Your task to perform on an android device: Open Wikipedia Image 0: 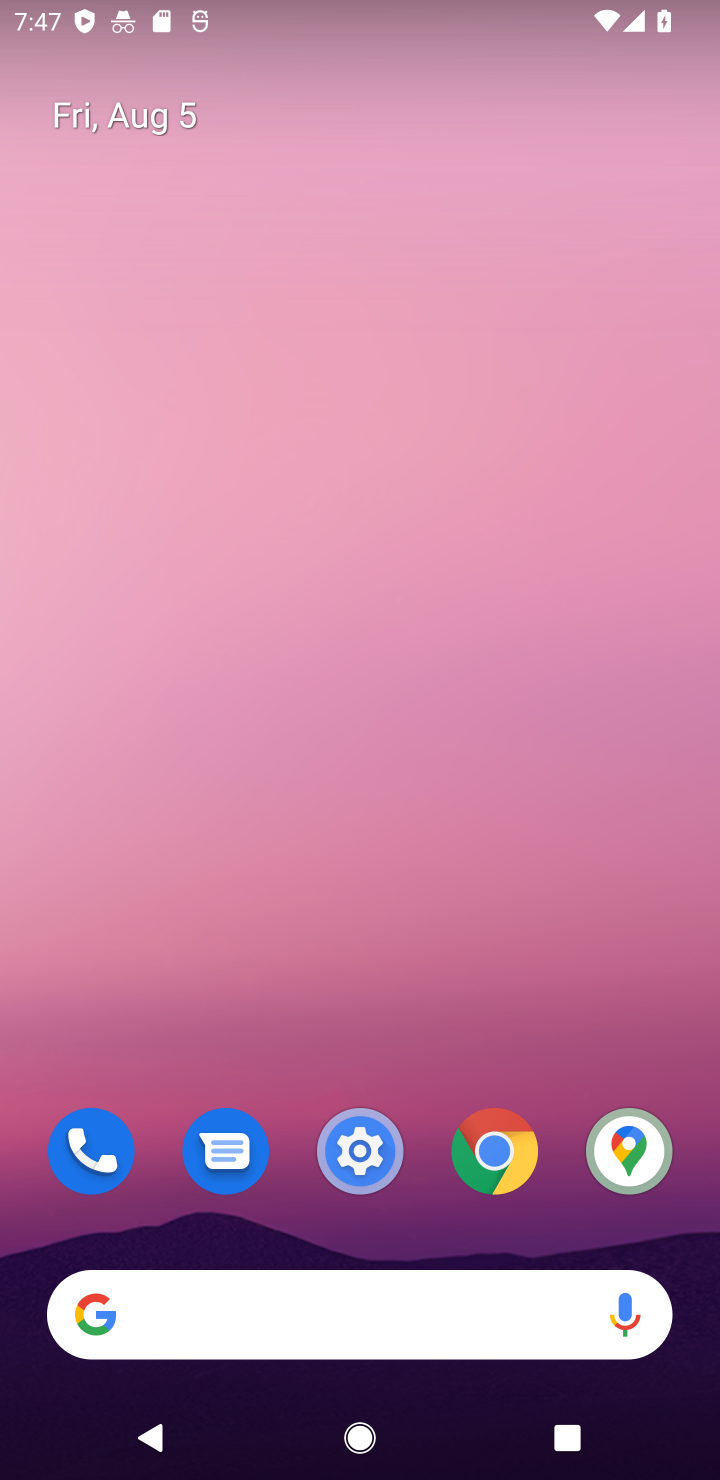
Step 0: drag from (380, 1251) to (704, 1425)
Your task to perform on an android device: Open Wikipedia Image 1: 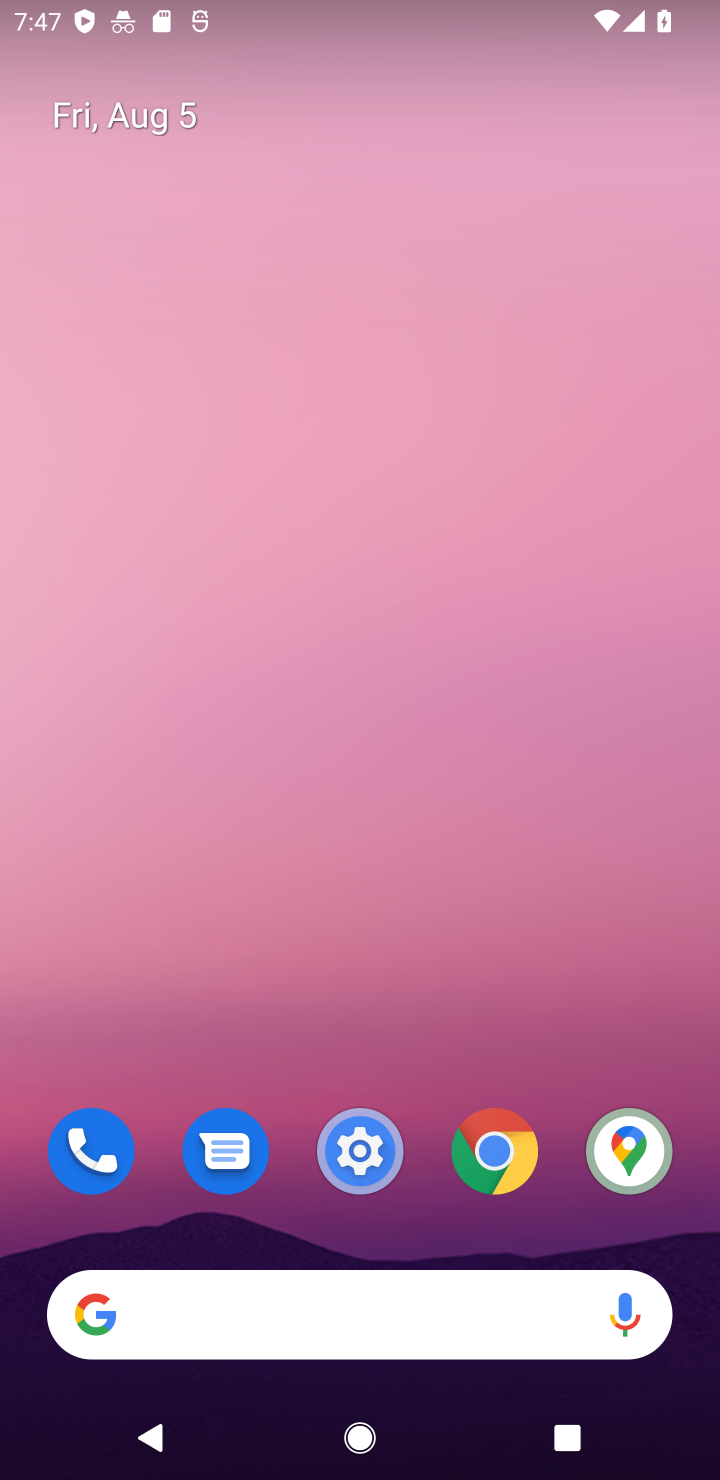
Step 1: click (477, 1130)
Your task to perform on an android device: Open Wikipedia Image 2: 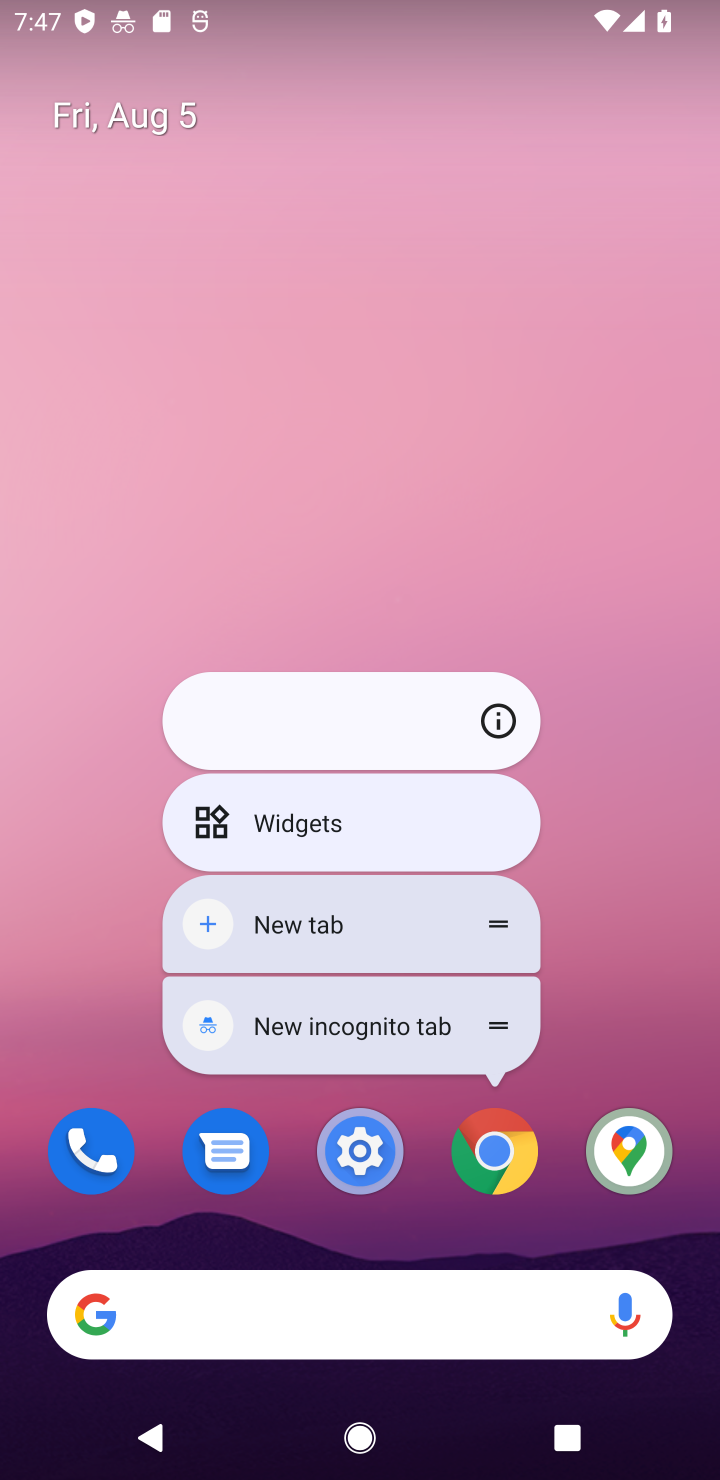
Step 2: click (474, 1216)
Your task to perform on an android device: Open Wikipedia Image 3: 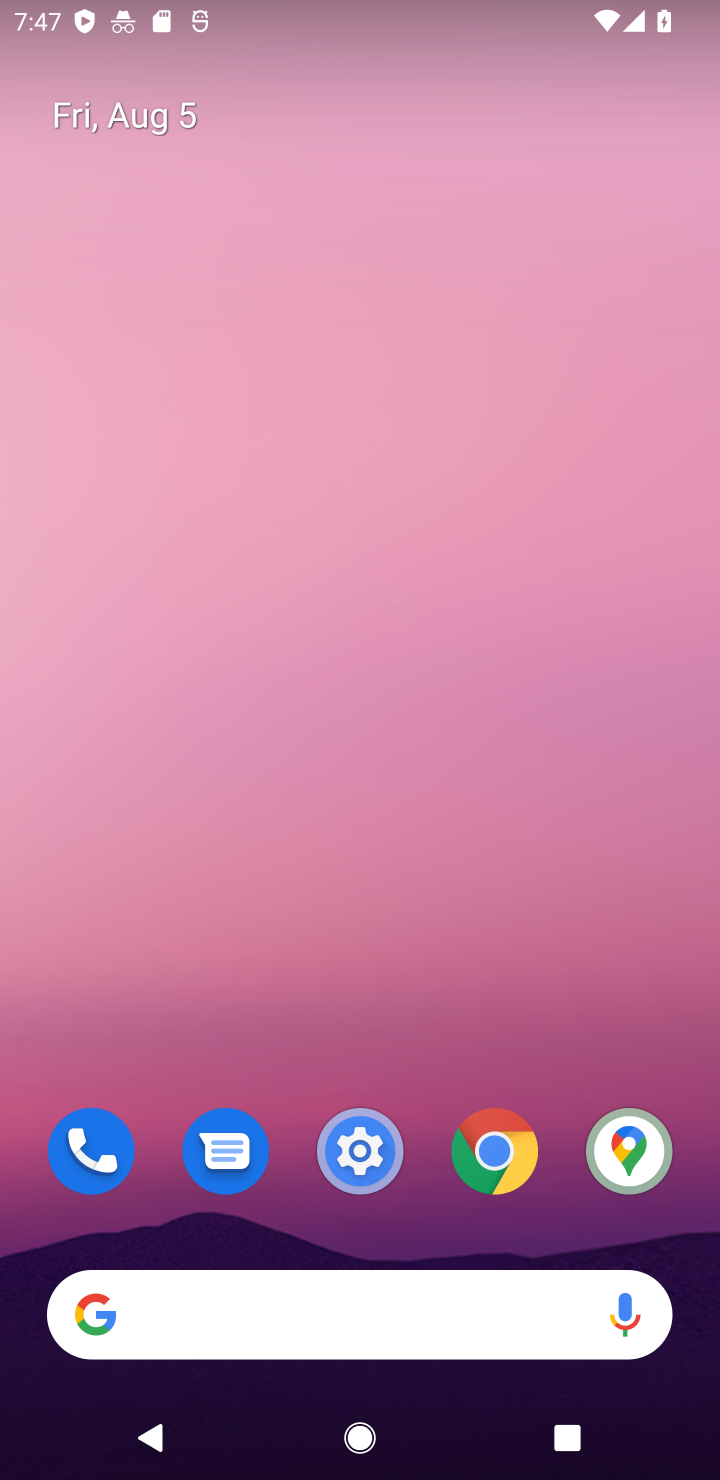
Step 3: drag from (336, 1265) to (377, 5)
Your task to perform on an android device: Open Wikipedia Image 4: 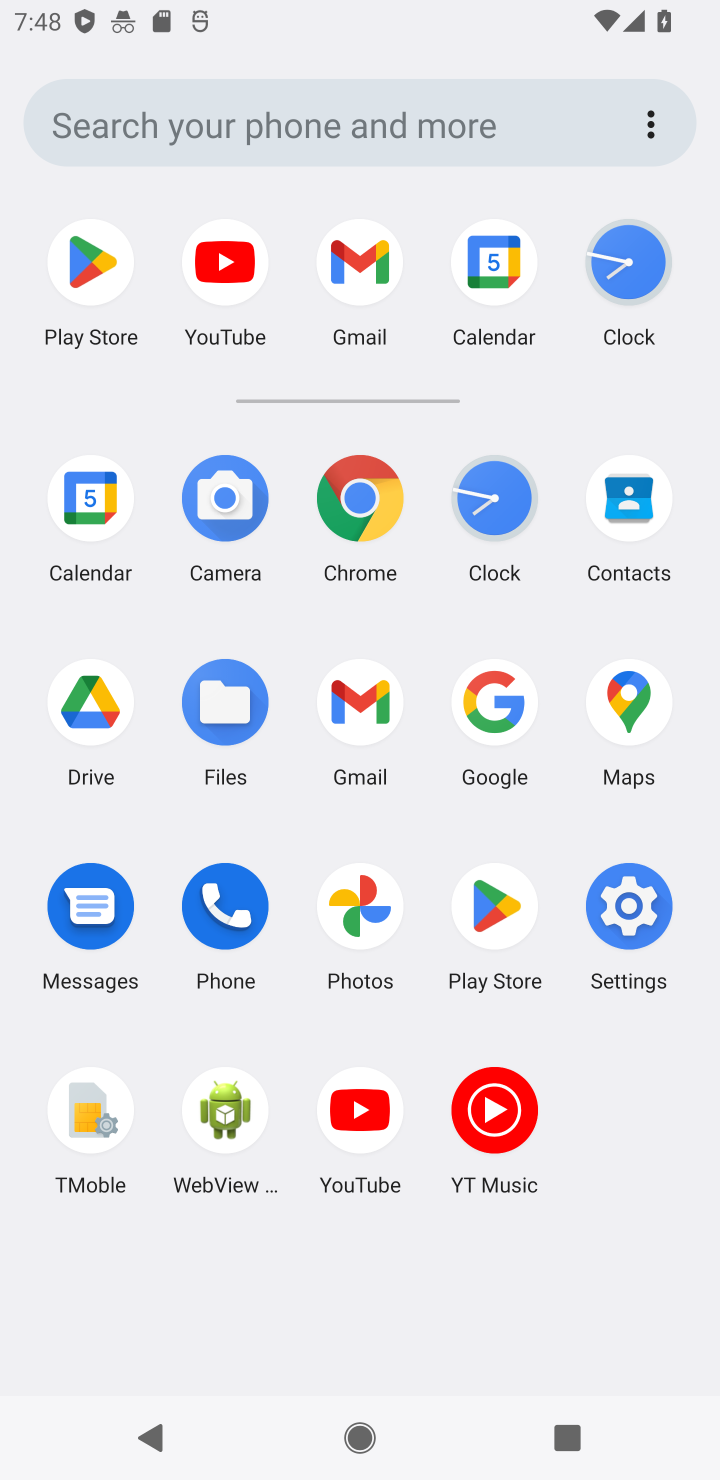
Step 4: drag from (416, 1244) to (330, 139)
Your task to perform on an android device: Open Wikipedia Image 5: 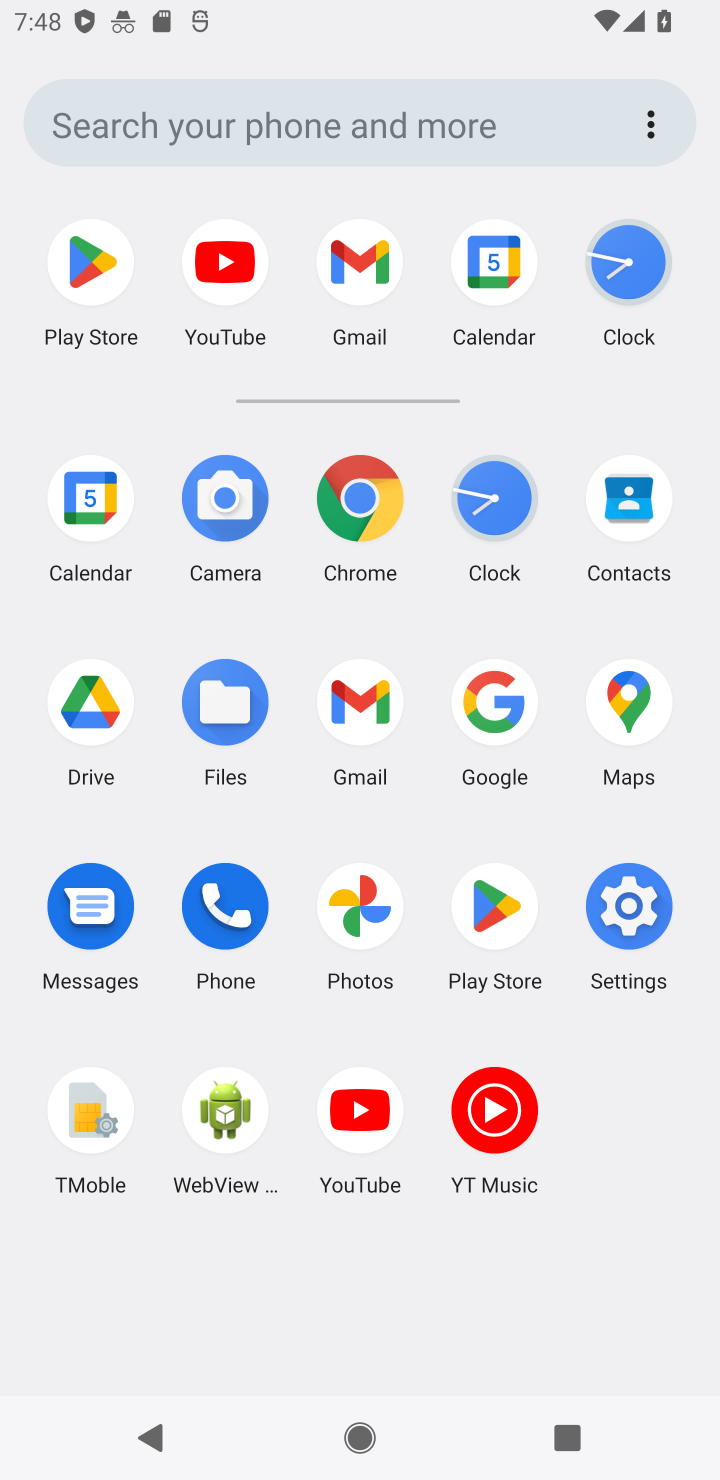
Step 5: click (371, 470)
Your task to perform on an android device: Open Wikipedia Image 6: 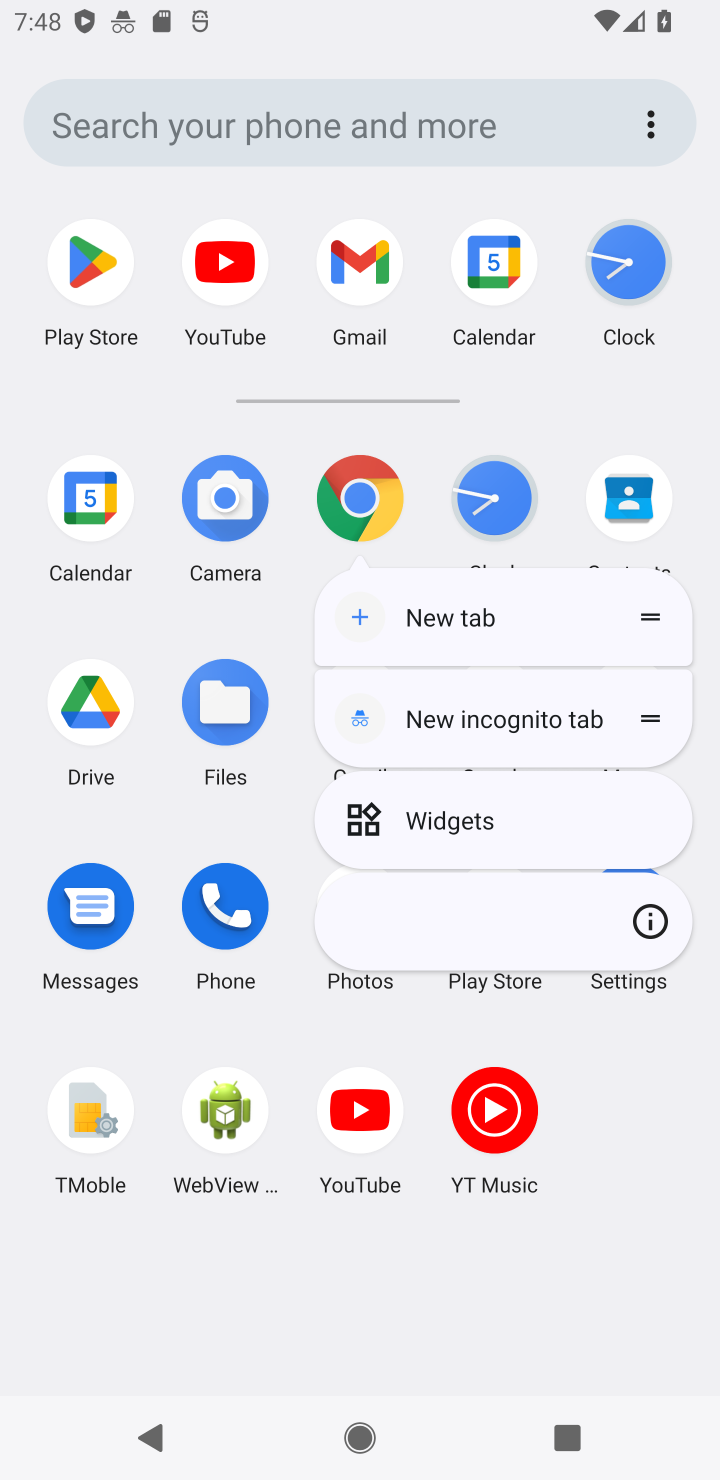
Step 6: click (366, 482)
Your task to perform on an android device: Open Wikipedia Image 7: 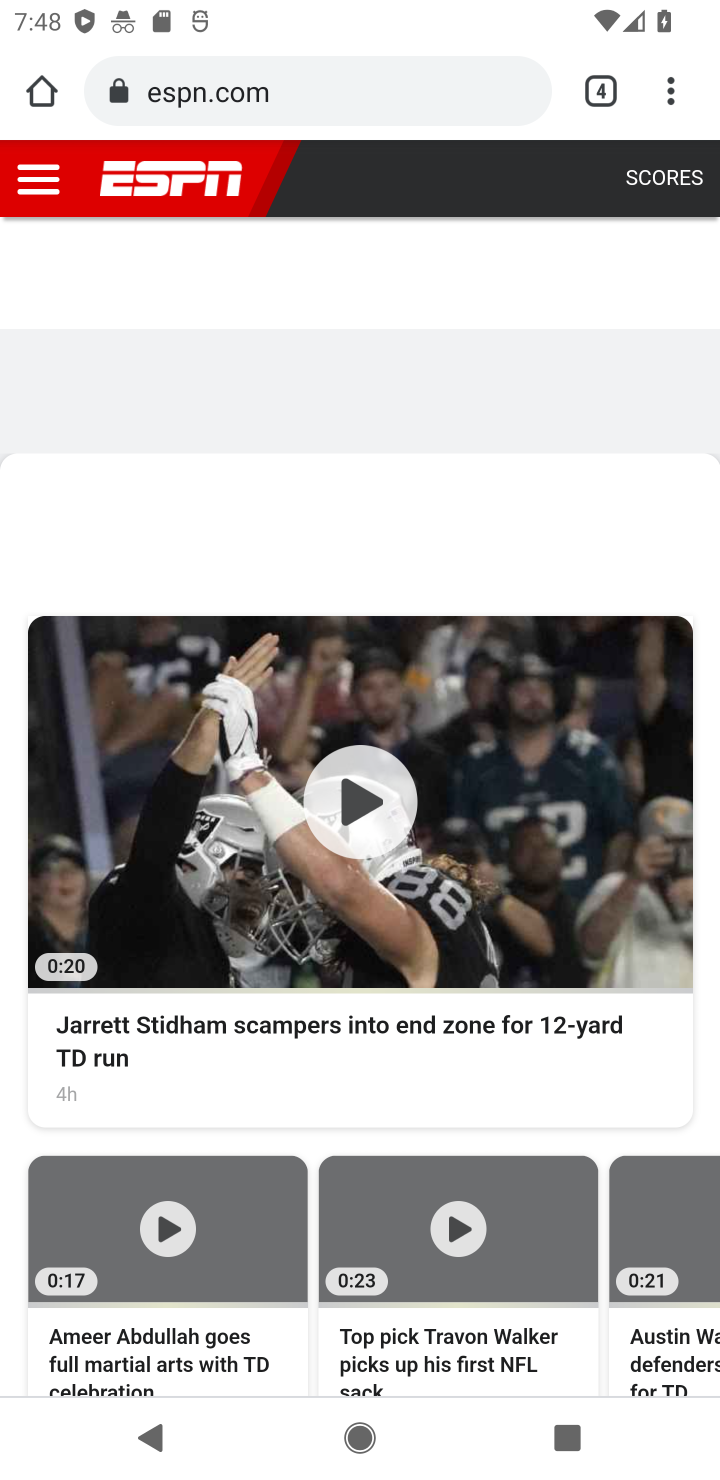
Step 7: click (635, 97)
Your task to perform on an android device: Open Wikipedia Image 8: 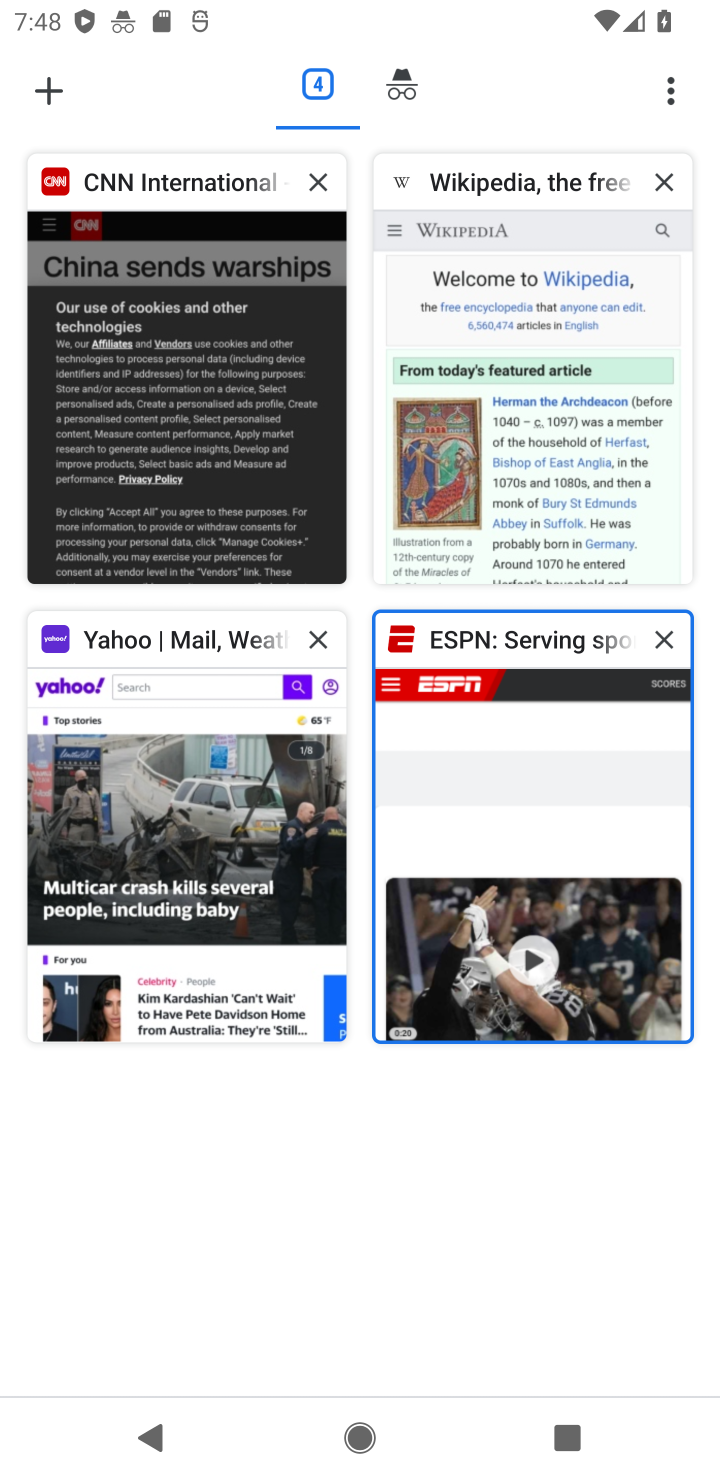
Step 8: click (524, 242)
Your task to perform on an android device: Open Wikipedia Image 9: 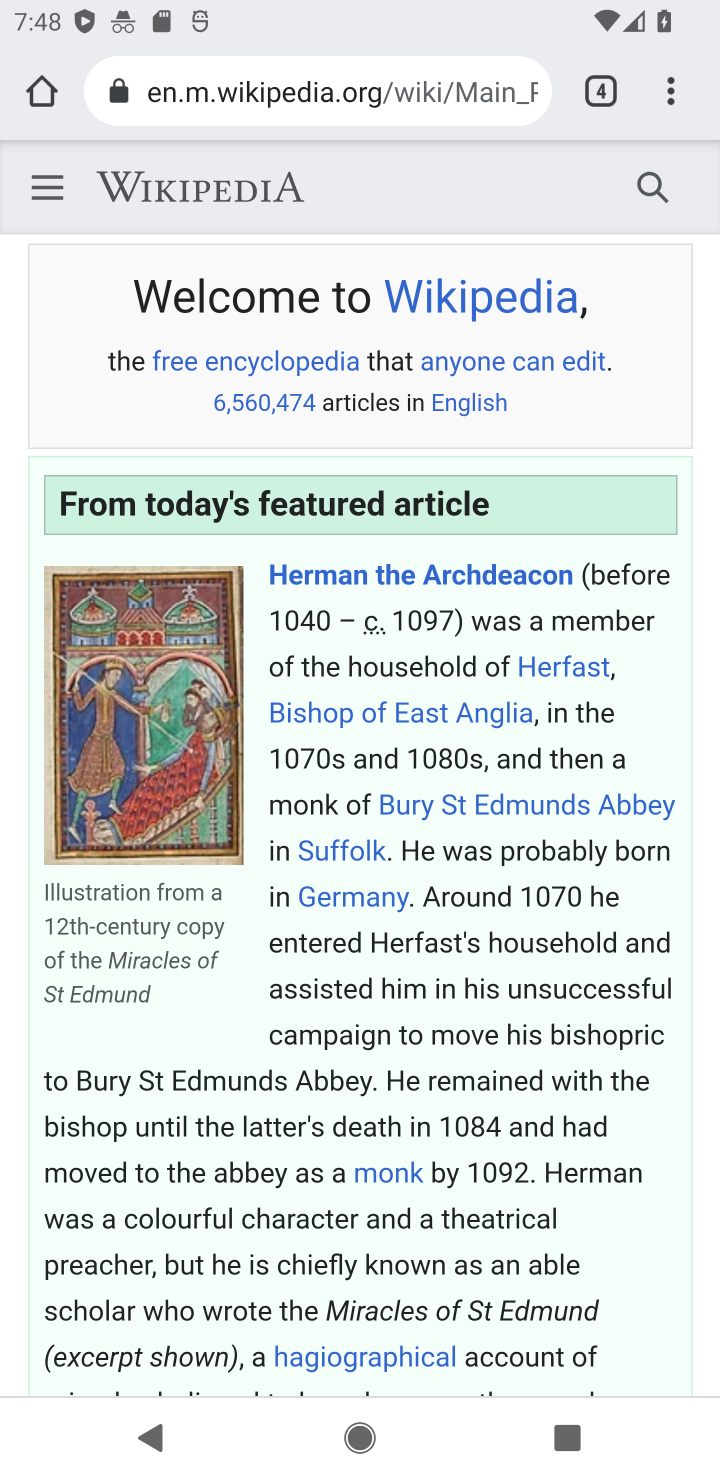
Step 9: task complete